Your task to perform on an android device: Search for vegetarian restaurants on Maps Image 0: 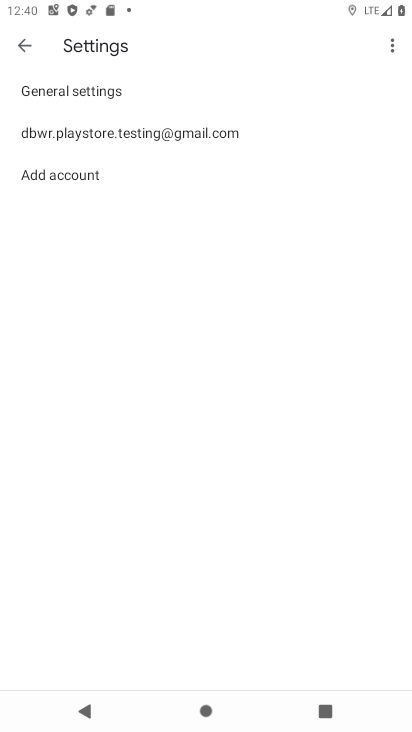
Step 0: press home button
Your task to perform on an android device: Search for vegetarian restaurants on Maps Image 1: 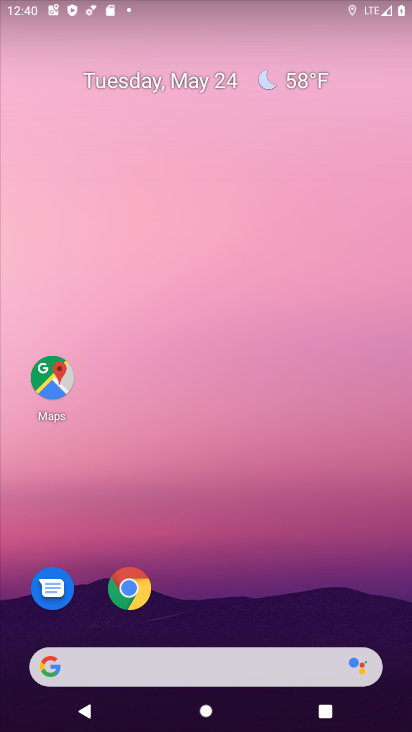
Step 1: drag from (190, 606) to (191, 186)
Your task to perform on an android device: Search for vegetarian restaurants on Maps Image 2: 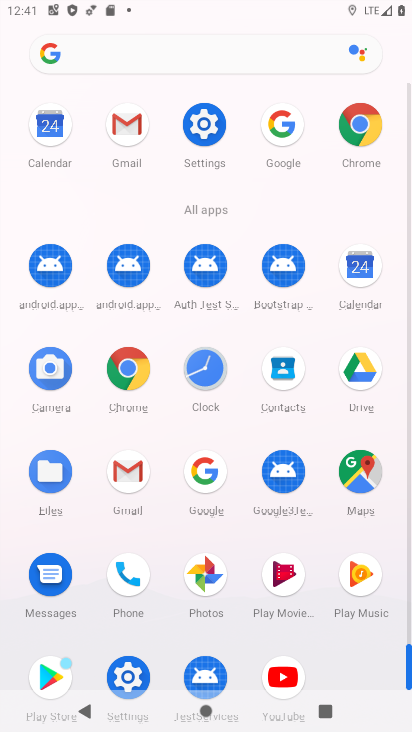
Step 2: click (358, 479)
Your task to perform on an android device: Search for vegetarian restaurants on Maps Image 3: 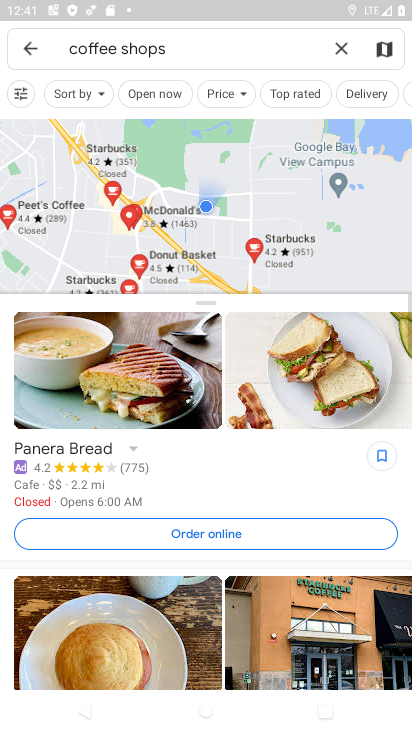
Step 3: click (330, 53)
Your task to perform on an android device: Search for vegetarian restaurants on Maps Image 4: 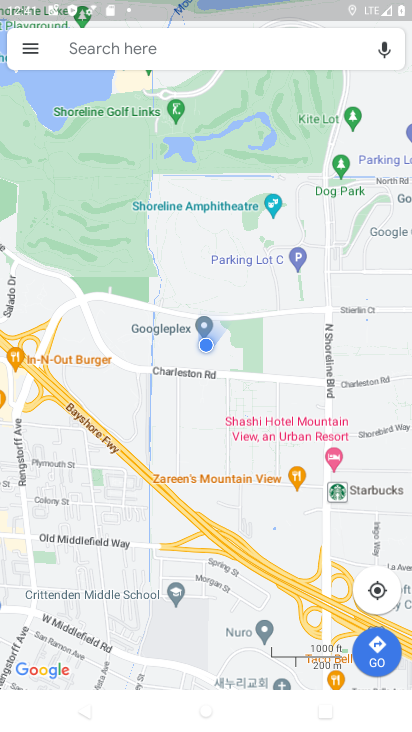
Step 4: click (142, 46)
Your task to perform on an android device: Search for vegetarian restaurants on Maps Image 5: 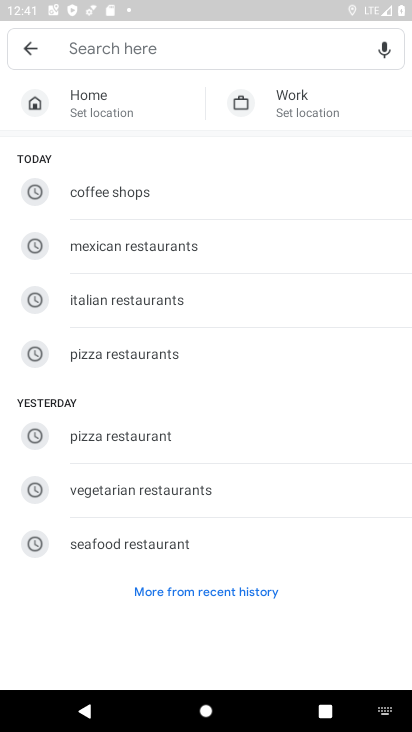
Step 5: click (128, 498)
Your task to perform on an android device: Search for vegetarian restaurants on Maps Image 6: 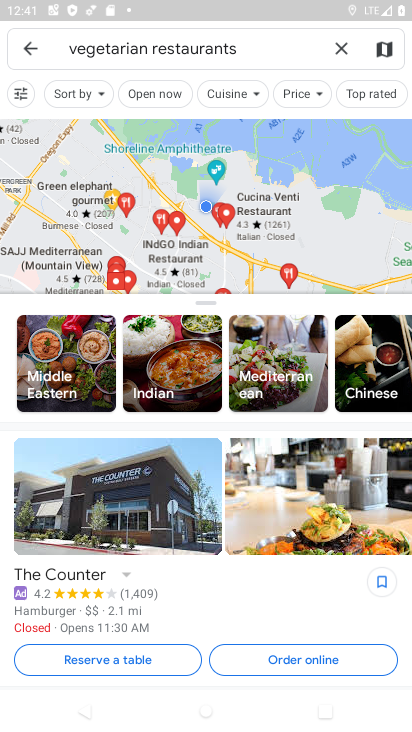
Step 6: task complete